Your task to perform on an android device: Open Google Chrome and open the bookmarks view Image 0: 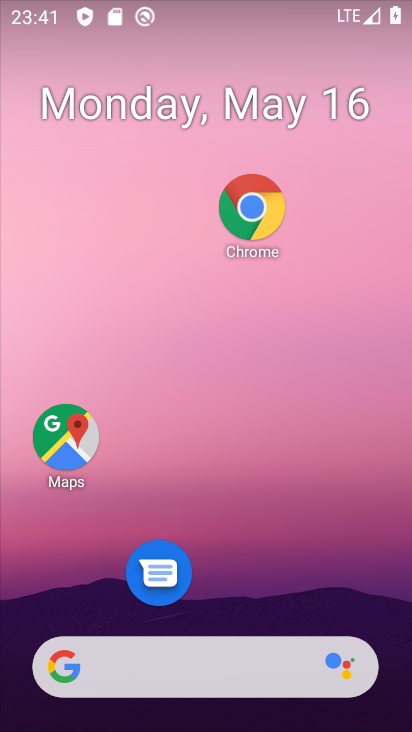
Step 0: drag from (314, 680) to (298, 125)
Your task to perform on an android device: Open Google Chrome and open the bookmarks view Image 1: 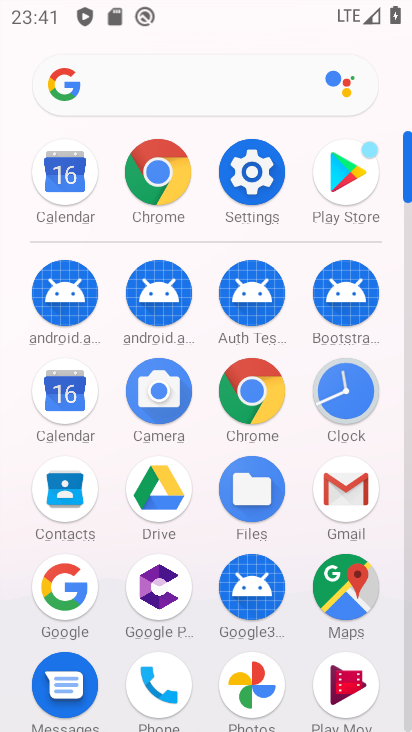
Step 1: click (263, 398)
Your task to perform on an android device: Open Google Chrome and open the bookmarks view Image 2: 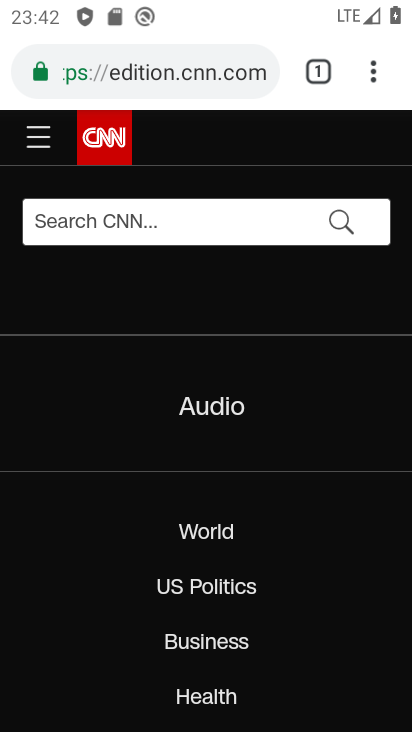
Step 2: click (370, 72)
Your task to perform on an android device: Open Google Chrome and open the bookmarks view Image 3: 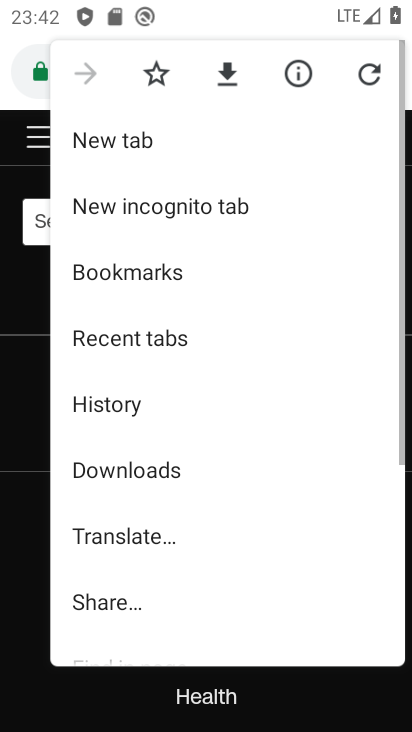
Step 3: click (154, 266)
Your task to perform on an android device: Open Google Chrome and open the bookmarks view Image 4: 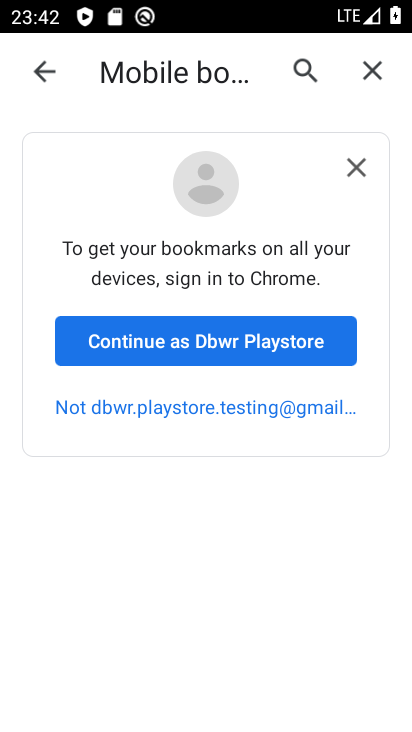
Step 4: task complete